Your task to perform on an android device: open device folders in google photos Image 0: 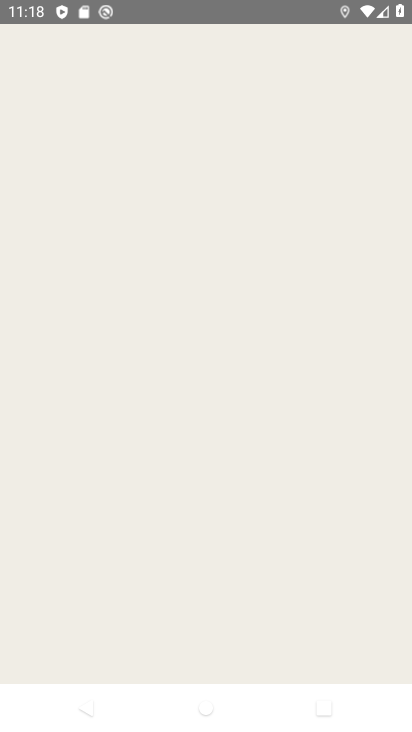
Step 0: press home button
Your task to perform on an android device: open device folders in google photos Image 1: 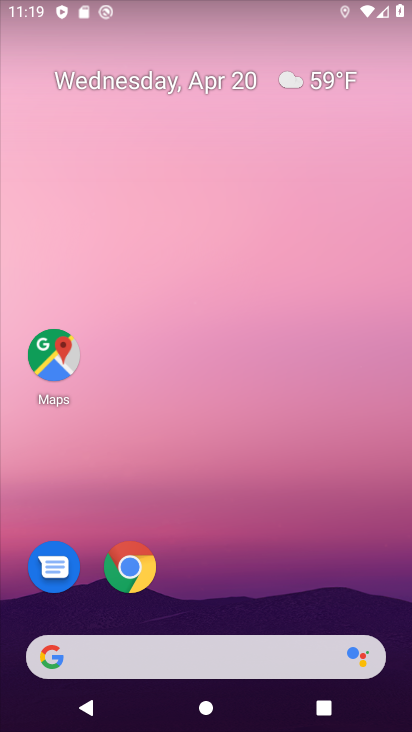
Step 1: drag from (260, 605) to (246, 23)
Your task to perform on an android device: open device folders in google photos Image 2: 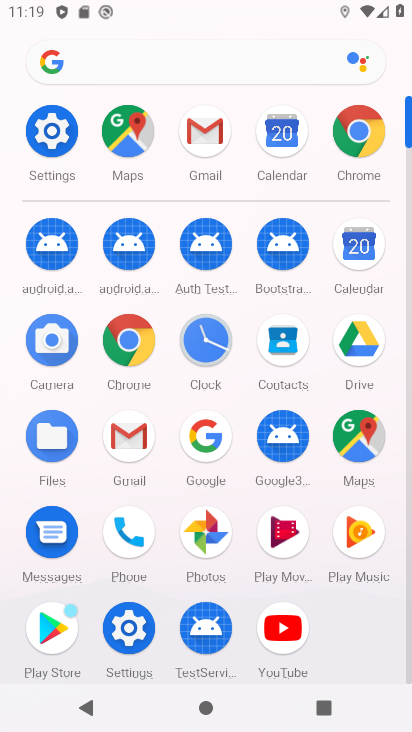
Step 2: click (197, 522)
Your task to perform on an android device: open device folders in google photos Image 3: 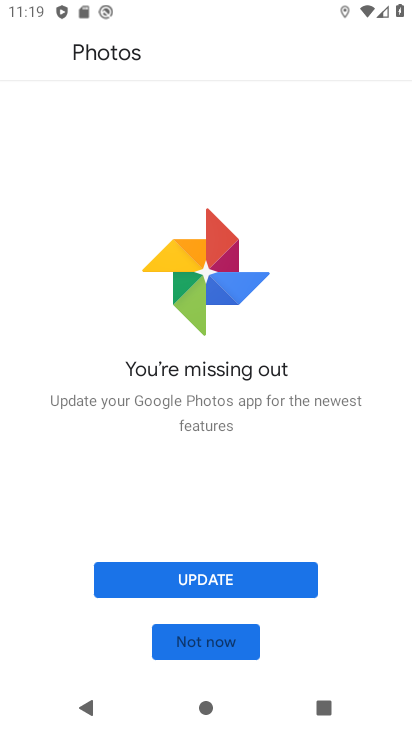
Step 3: click (163, 571)
Your task to perform on an android device: open device folders in google photos Image 4: 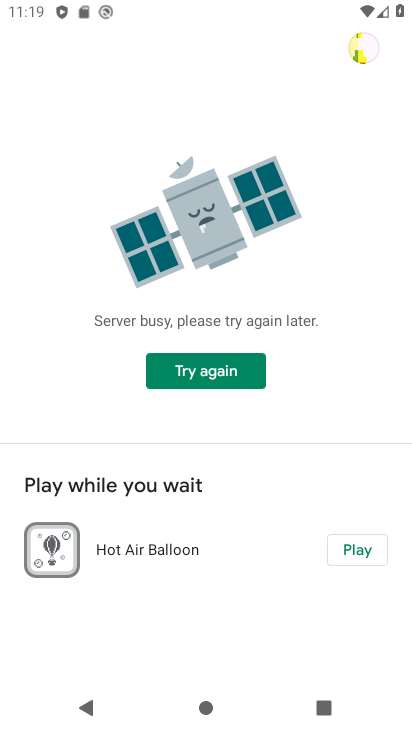
Step 4: click (231, 365)
Your task to perform on an android device: open device folders in google photos Image 5: 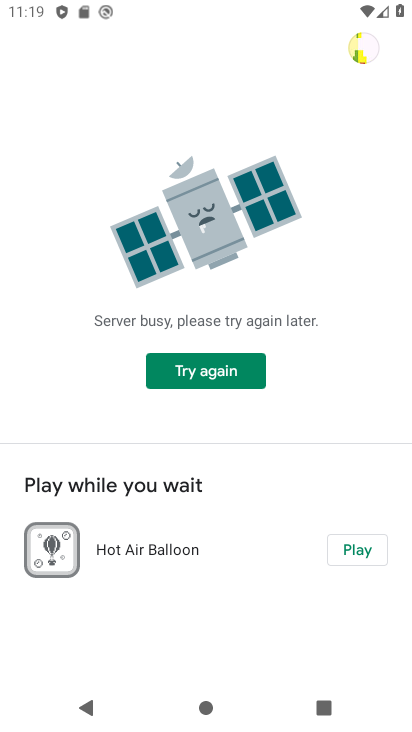
Step 5: press back button
Your task to perform on an android device: open device folders in google photos Image 6: 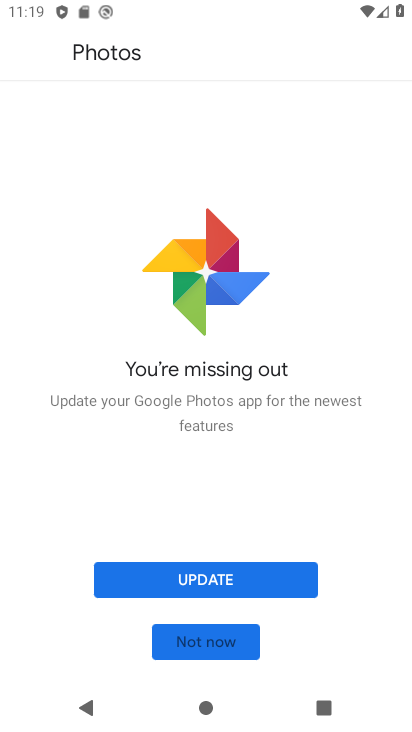
Step 6: click (195, 644)
Your task to perform on an android device: open device folders in google photos Image 7: 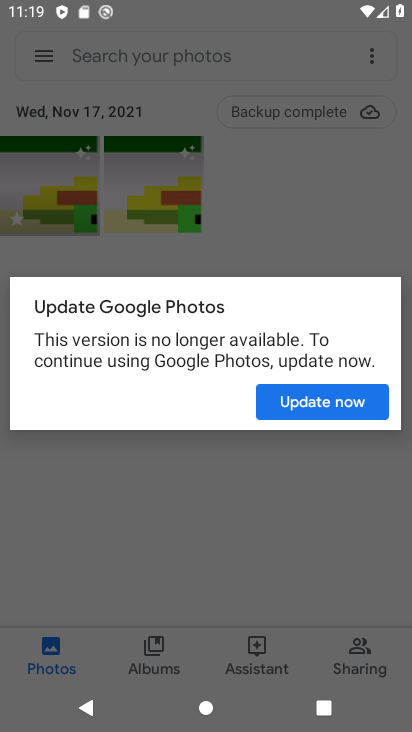
Step 7: click (345, 404)
Your task to perform on an android device: open device folders in google photos Image 8: 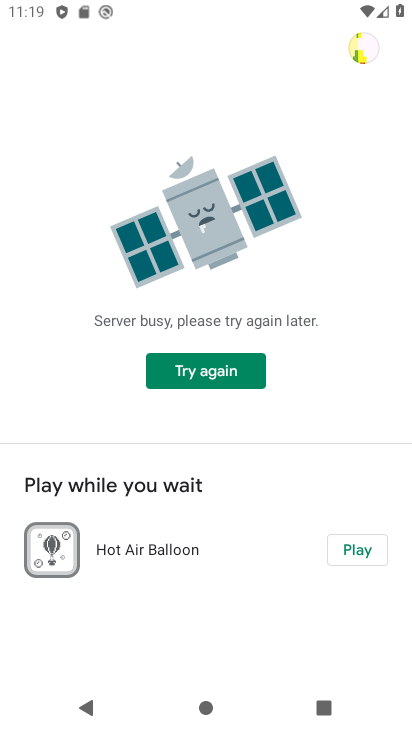
Step 8: click (177, 377)
Your task to perform on an android device: open device folders in google photos Image 9: 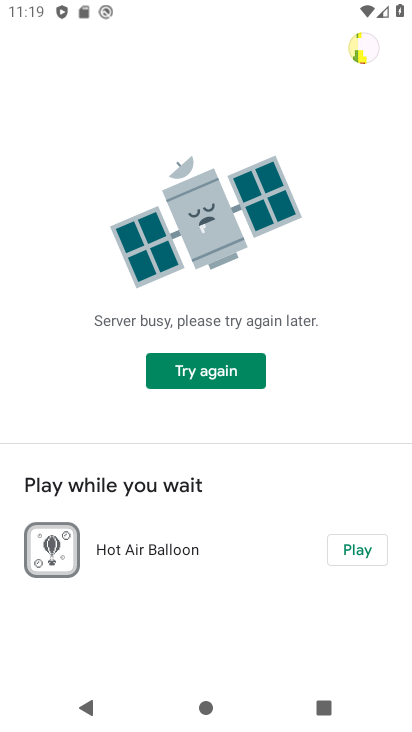
Step 9: task complete